Your task to perform on an android device: Clear all items from cart on newegg.com. Search for "dell alienware" on newegg.com, select the first entry, add it to the cart, then select checkout. Image 0: 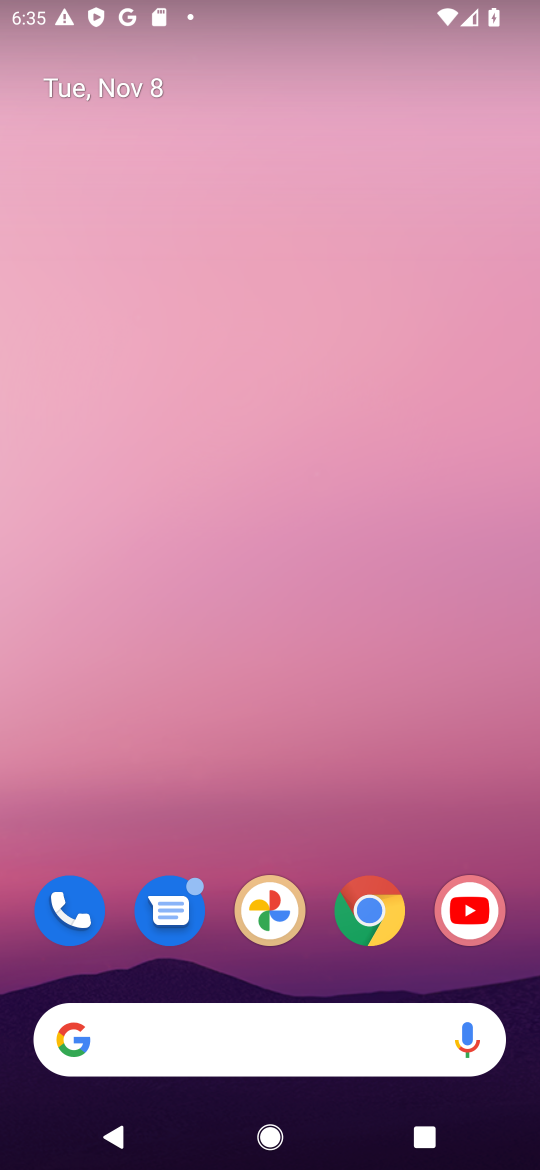
Step 0: click (370, 919)
Your task to perform on an android device: Clear all items from cart on newegg.com. Search for "dell alienware" on newegg.com, select the first entry, add it to the cart, then select checkout. Image 1: 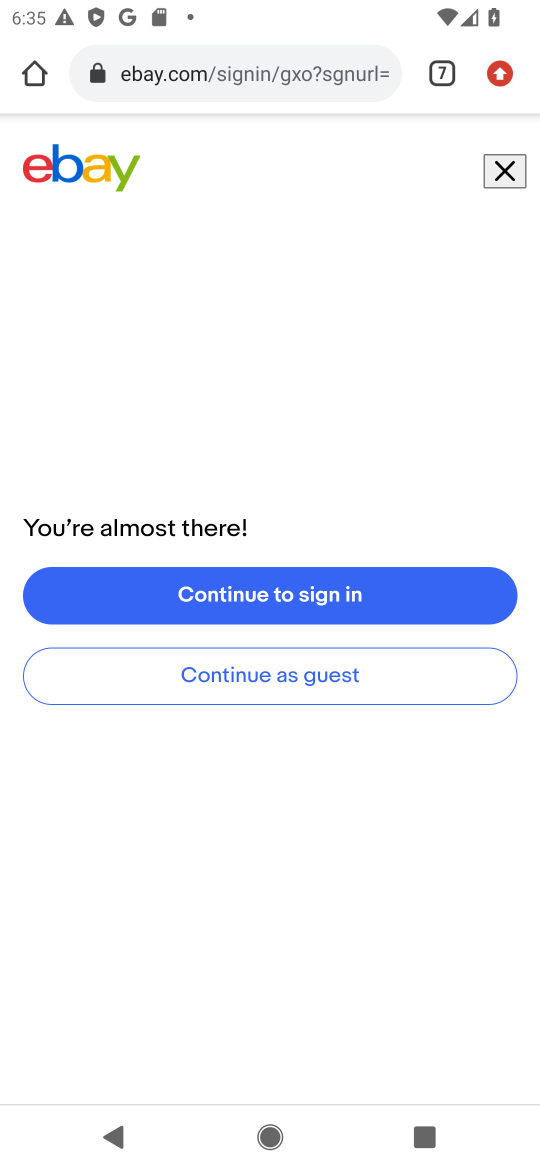
Step 1: click (436, 80)
Your task to perform on an android device: Clear all items from cart on newegg.com. Search for "dell alienware" on newegg.com, select the first entry, add it to the cart, then select checkout. Image 2: 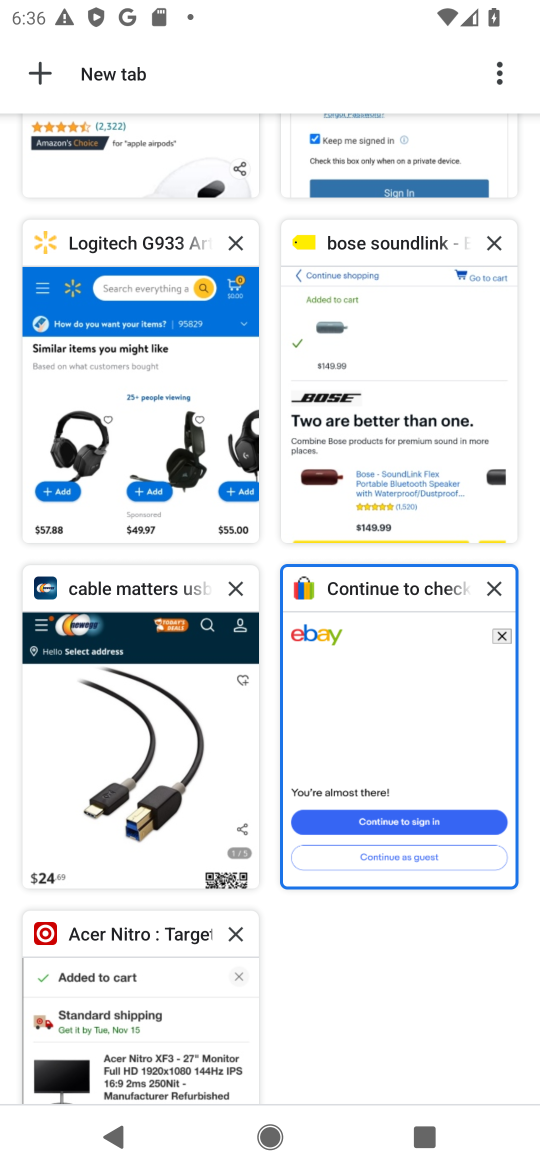
Step 2: click (79, 727)
Your task to perform on an android device: Clear all items from cart on newegg.com. Search for "dell alienware" on newegg.com, select the first entry, add it to the cart, then select checkout. Image 3: 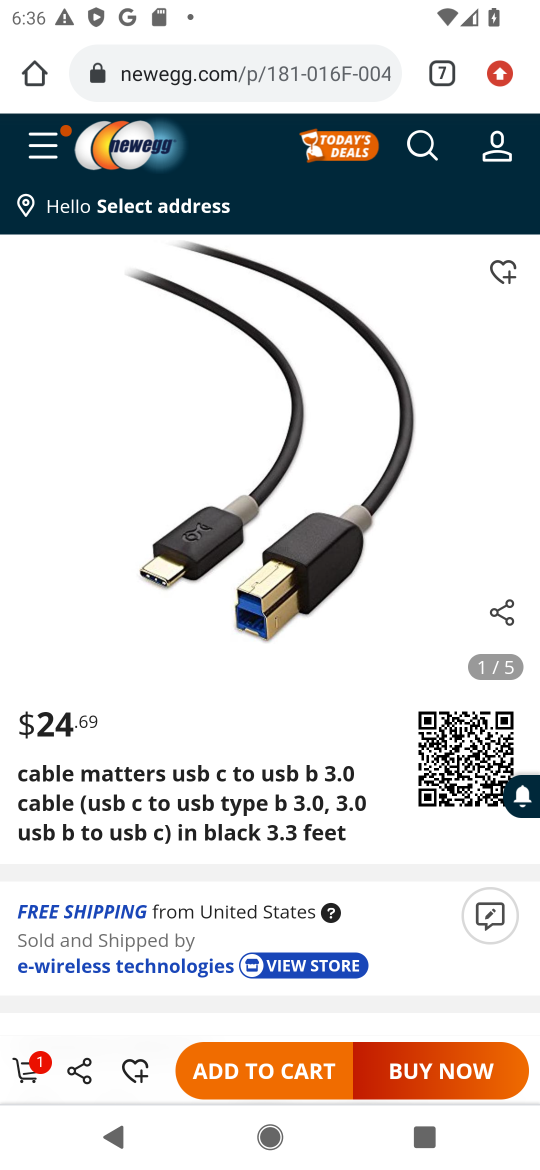
Step 3: click (423, 144)
Your task to perform on an android device: Clear all items from cart on newegg.com. Search for "dell alienware" on newegg.com, select the first entry, add it to the cart, then select checkout. Image 4: 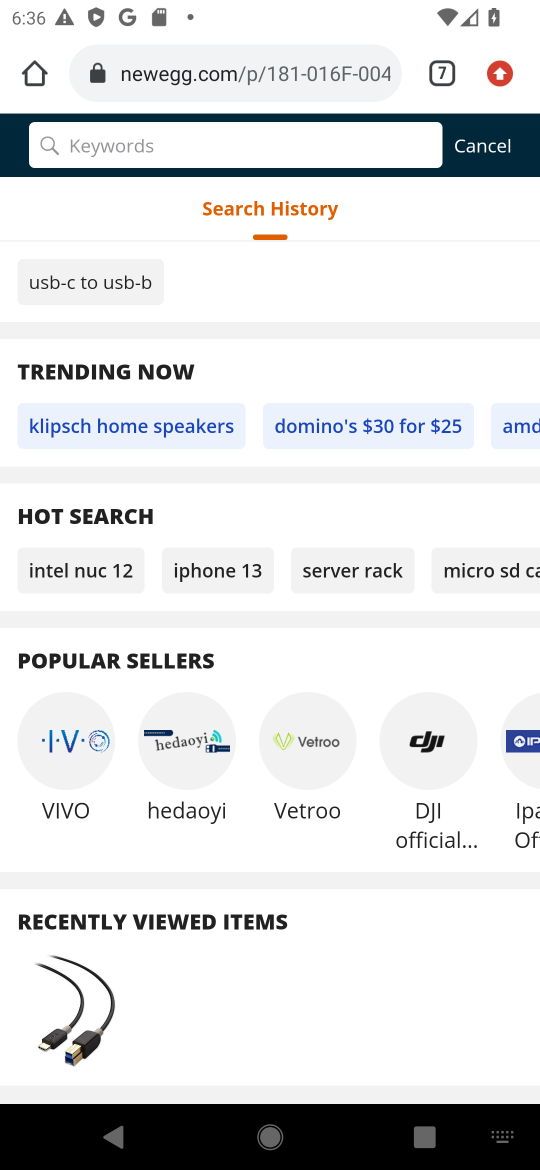
Step 4: type "dell alienware"
Your task to perform on an android device: Clear all items from cart on newegg.com. Search for "dell alienware" on newegg.com, select the first entry, add it to the cart, then select checkout. Image 5: 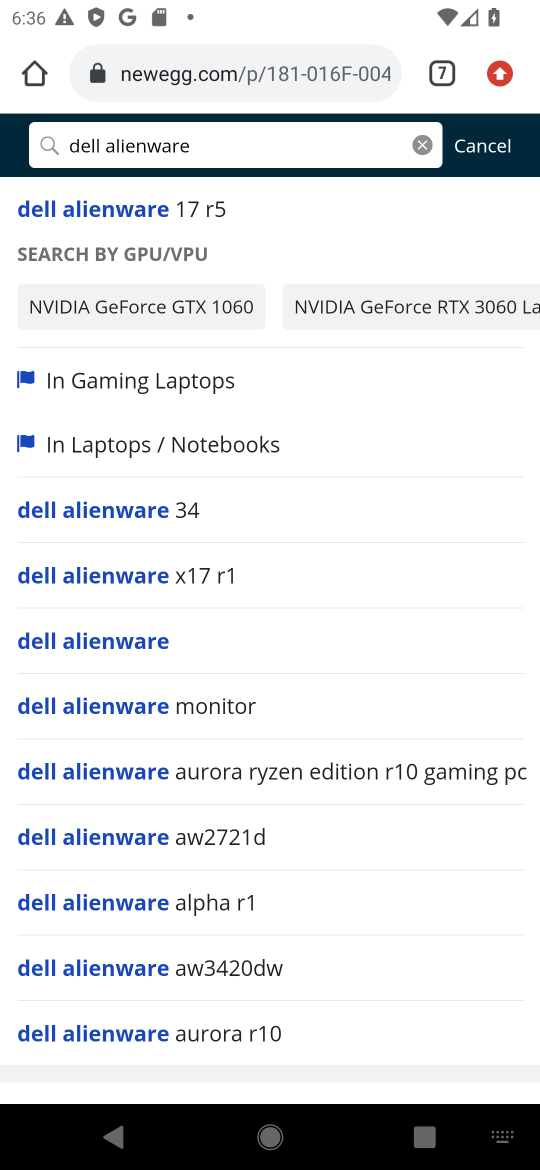
Step 5: click (130, 201)
Your task to perform on an android device: Clear all items from cart on newegg.com. Search for "dell alienware" on newegg.com, select the first entry, add it to the cart, then select checkout. Image 6: 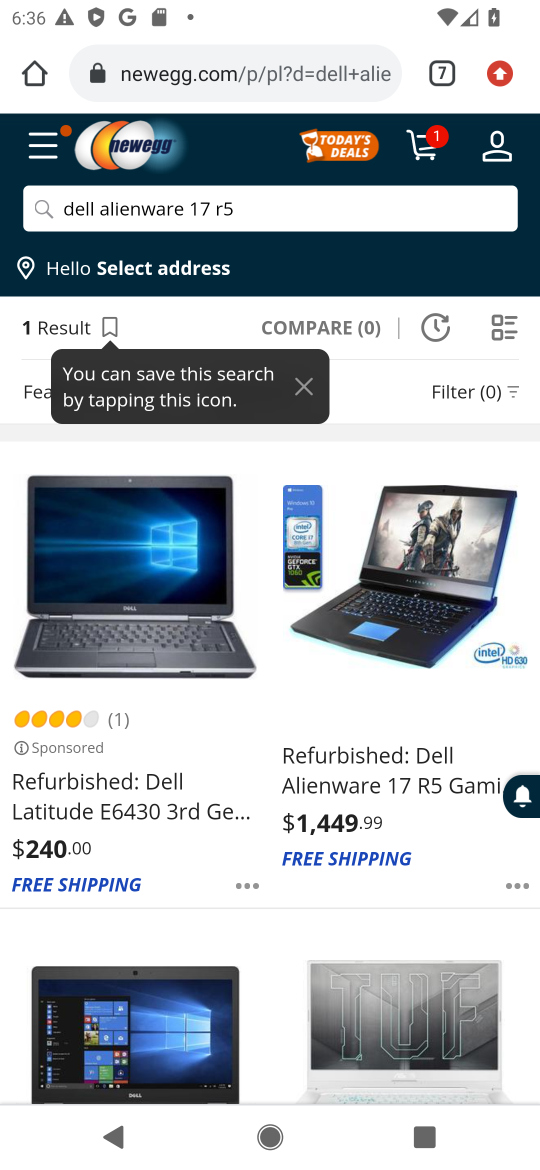
Step 6: click (347, 769)
Your task to perform on an android device: Clear all items from cart on newegg.com. Search for "dell alienware" on newegg.com, select the first entry, add it to the cart, then select checkout. Image 7: 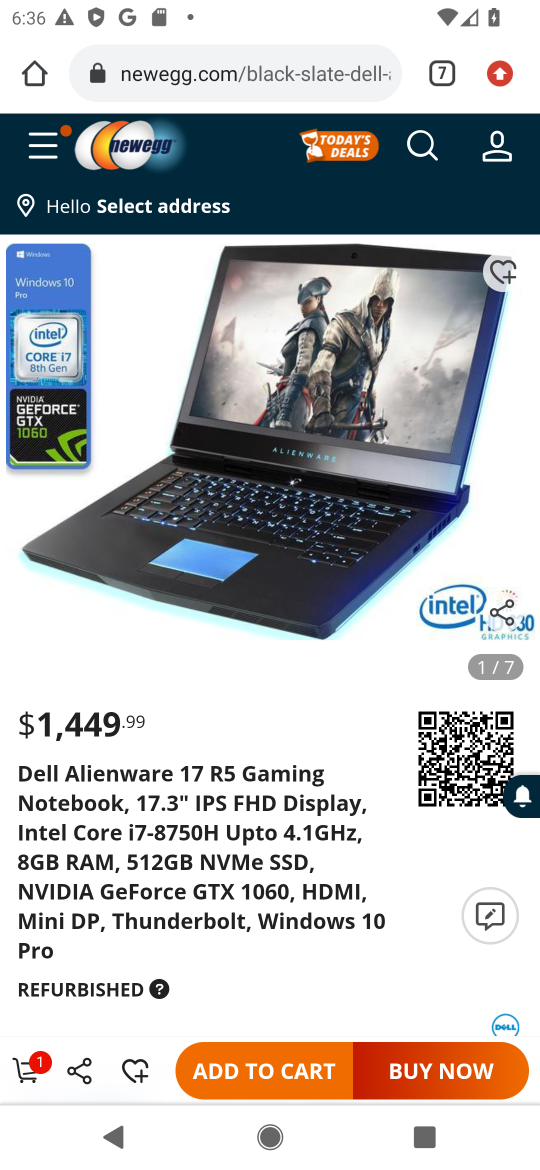
Step 7: click (291, 1074)
Your task to perform on an android device: Clear all items from cart on newegg.com. Search for "dell alienware" on newegg.com, select the first entry, add it to the cart, then select checkout. Image 8: 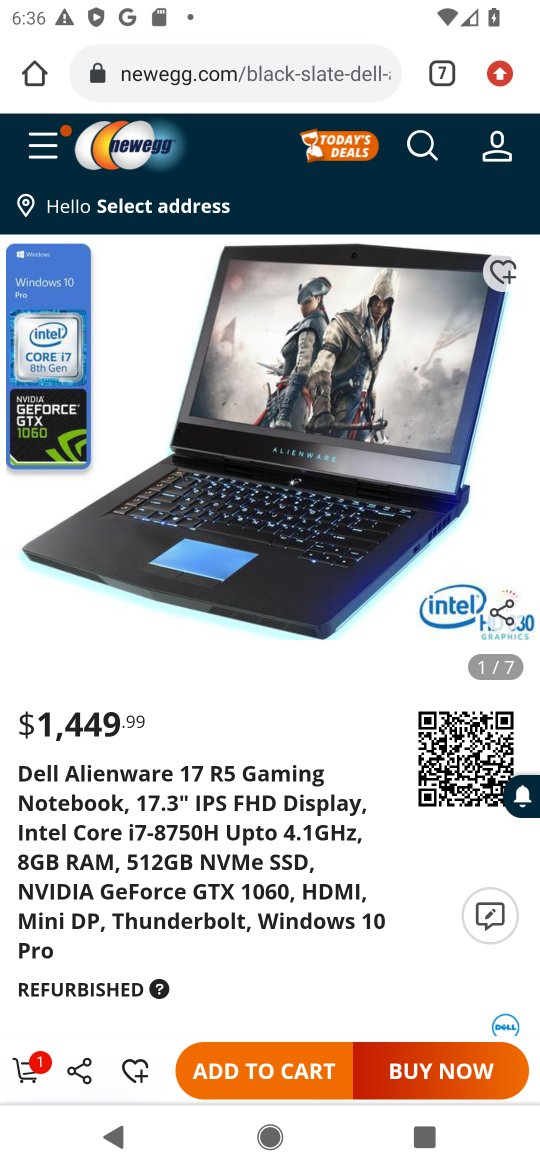
Step 8: click (291, 1074)
Your task to perform on an android device: Clear all items from cart on newegg.com. Search for "dell alienware" on newegg.com, select the first entry, add it to the cart, then select checkout. Image 9: 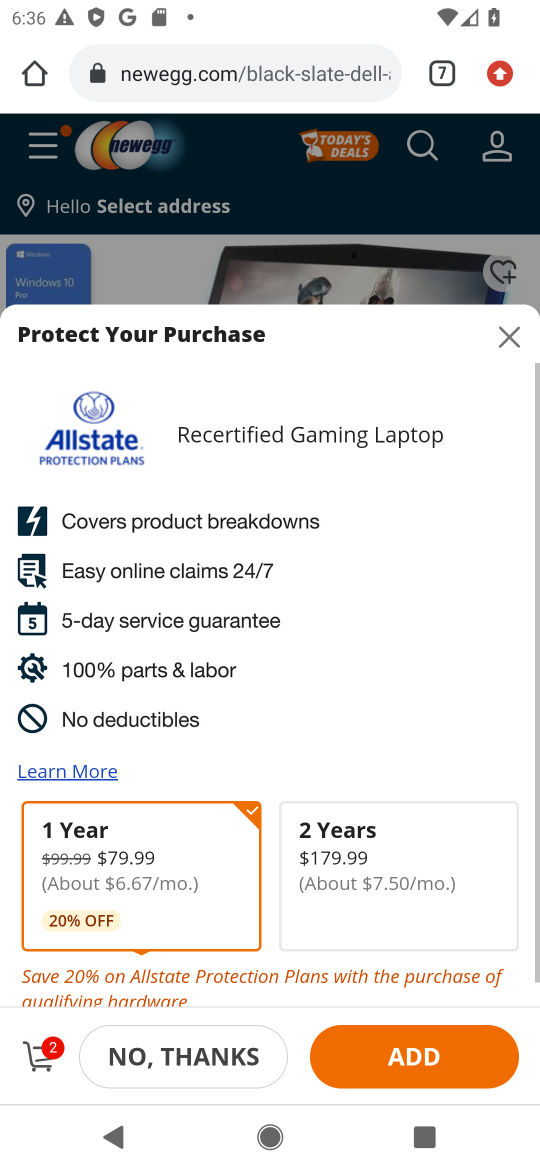
Step 9: task complete